Your task to perform on an android device: clear history in the chrome app Image 0: 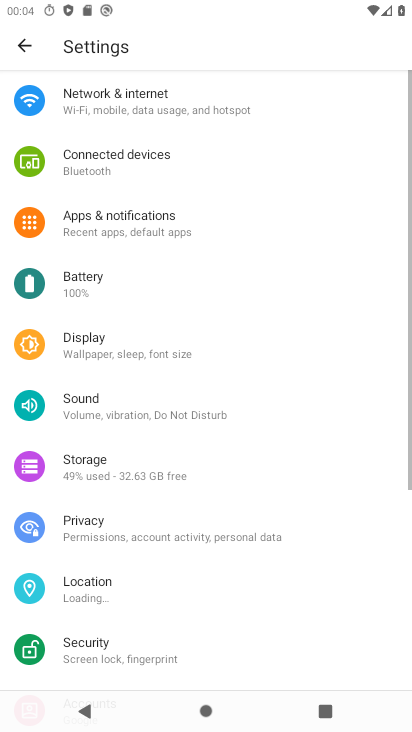
Step 0: drag from (134, 640) to (134, 269)
Your task to perform on an android device: clear history in the chrome app Image 1: 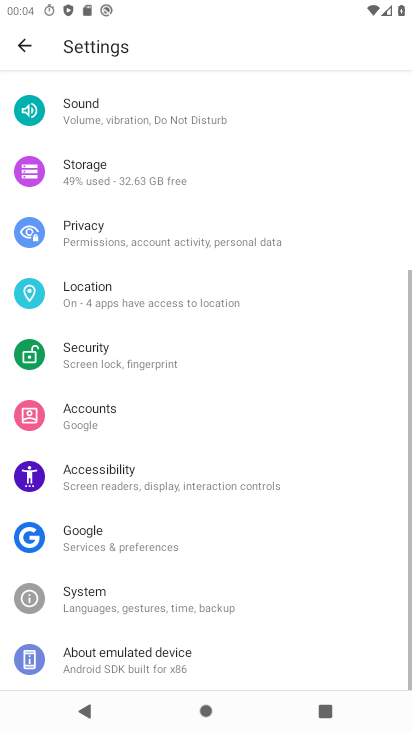
Step 1: press home button
Your task to perform on an android device: clear history in the chrome app Image 2: 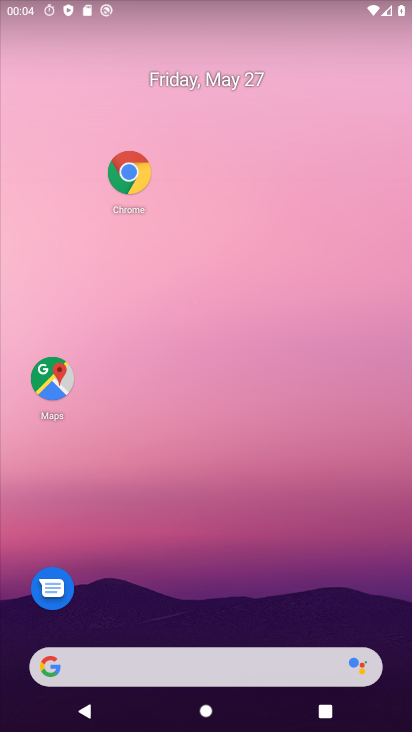
Step 2: click (130, 170)
Your task to perform on an android device: clear history in the chrome app Image 3: 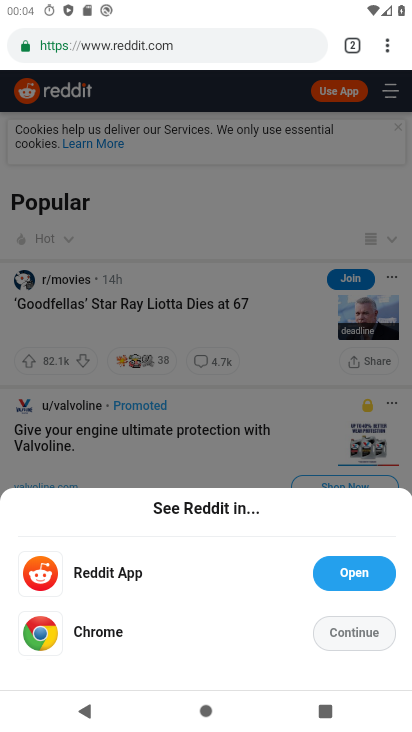
Step 3: click (387, 43)
Your task to perform on an android device: clear history in the chrome app Image 4: 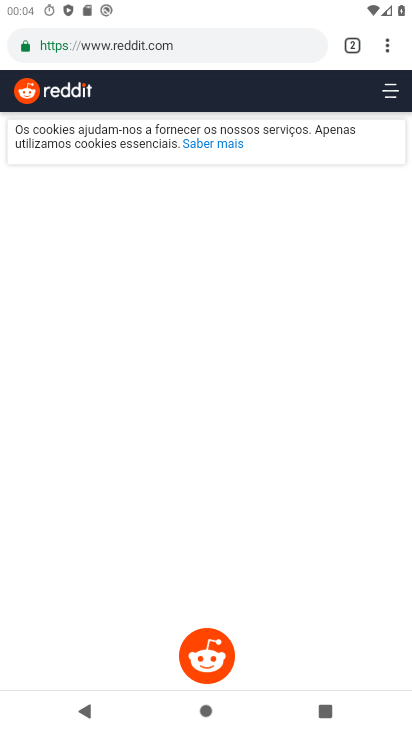
Step 4: click (388, 44)
Your task to perform on an android device: clear history in the chrome app Image 5: 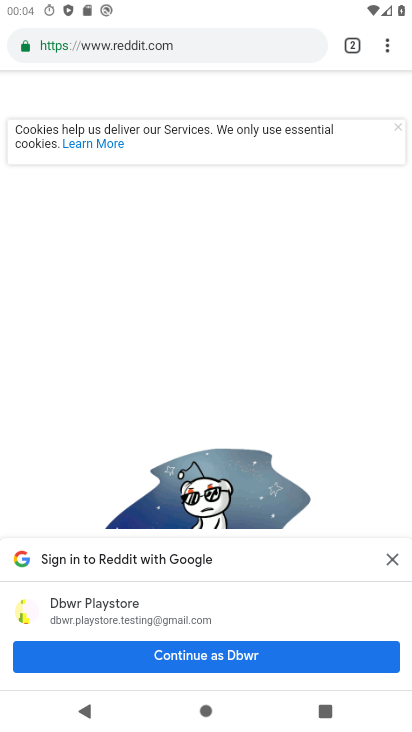
Step 5: click (385, 48)
Your task to perform on an android device: clear history in the chrome app Image 6: 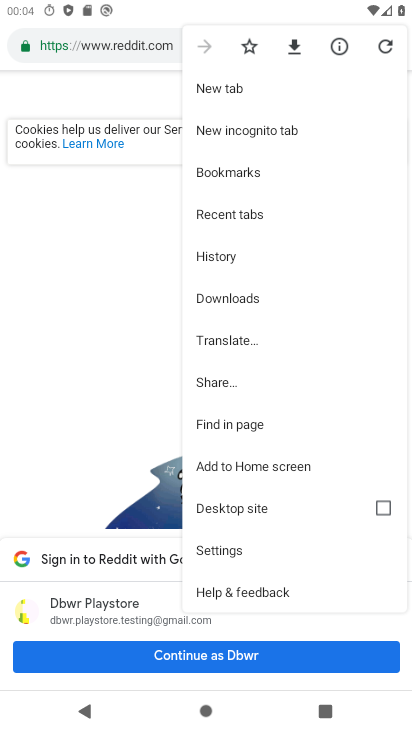
Step 6: click (231, 258)
Your task to perform on an android device: clear history in the chrome app Image 7: 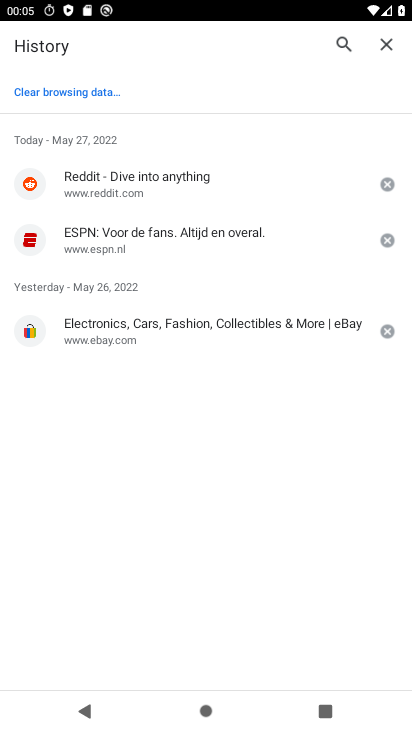
Step 7: click (39, 95)
Your task to perform on an android device: clear history in the chrome app Image 8: 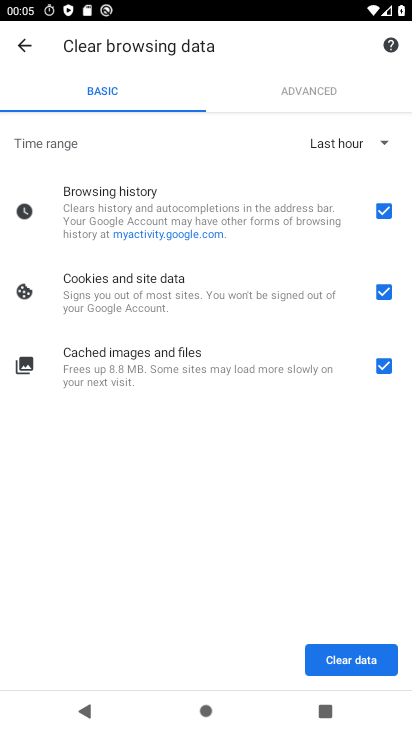
Step 8: click (352, 661)
Your task to perform on an android device: clear history in the chrome app Image 9: 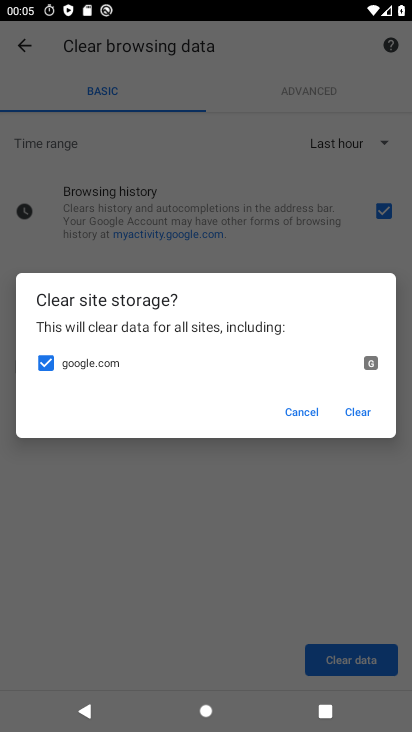
Step 9: click (366, 416)
Your task to perform on an android device: clear history in the chrome app Image 10: 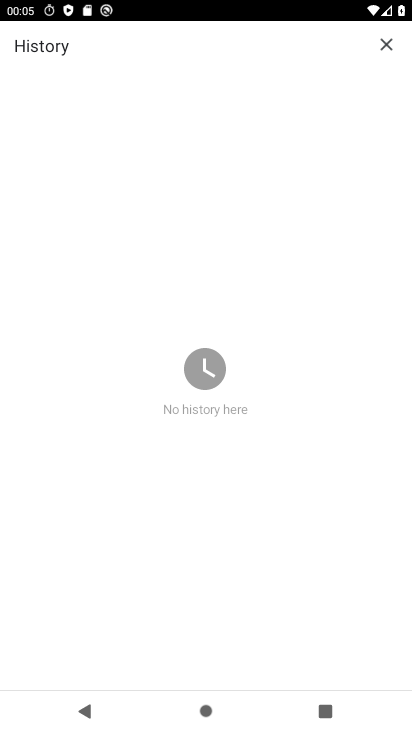
Step 10: task complete